Your task to perform on an android device: Search for Italian restaurants on Maps Image 0: 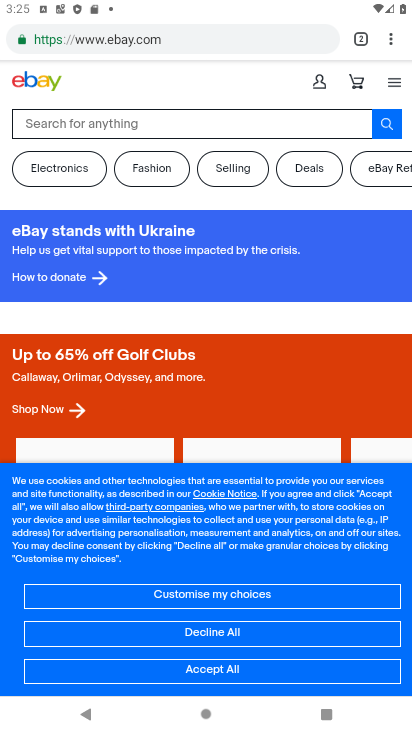
Step 0: press home button
Your task to perform on an android device: Search for Italian restaurants on Maps Image 1: 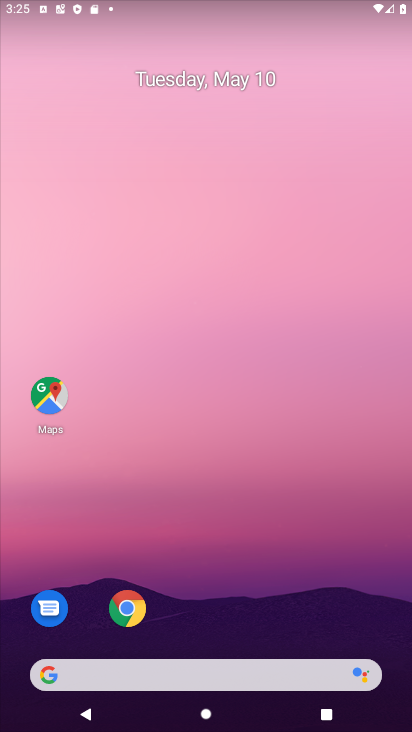
Step 1: click (49, 390)
Your task to perform on an android device: Search for Italian restaurants on Maps Image 2: 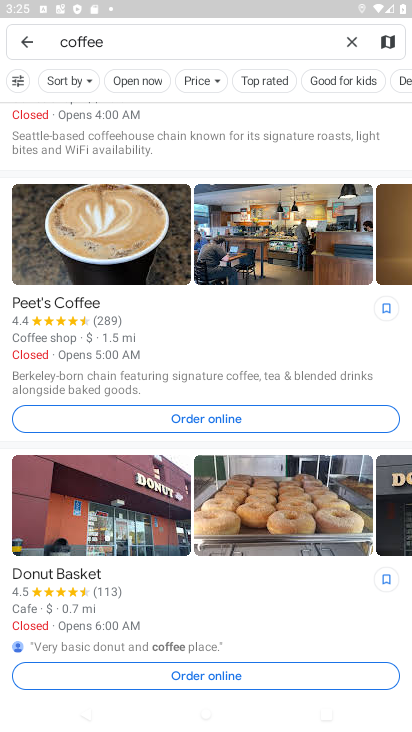
Step 2: click (353, 41)
Your task to perform on an android device: Search for Italian restaurants on Maps Image 3: 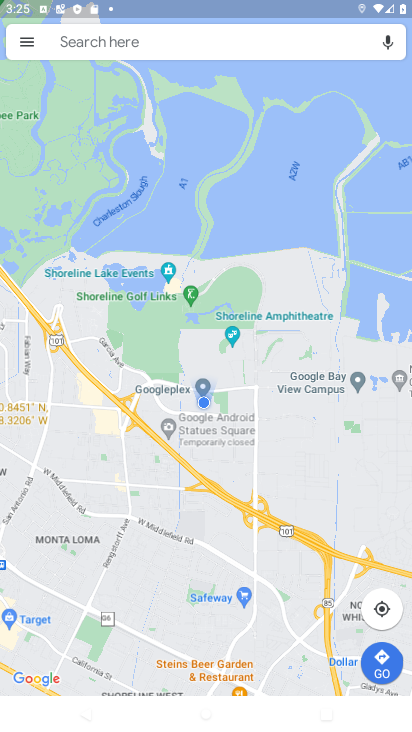
Step 3: click (145, 38)
Your task to perform on an android device: Search for Italian restaurants on Maps Image 4: 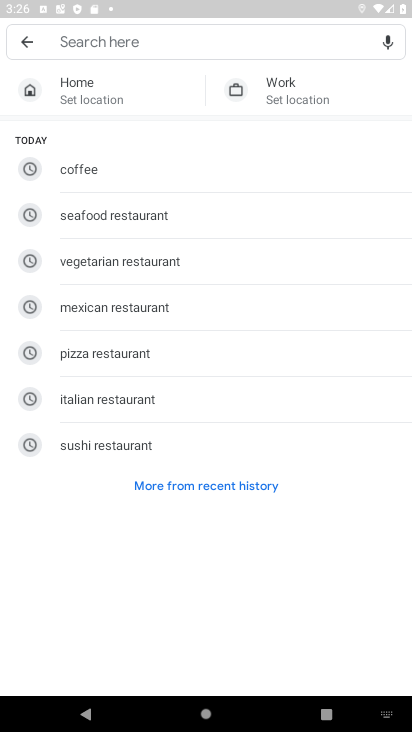
Step 4: type "italian restaurants"
Your task to perform on an android device: Search for Italian restaurants on Maps Image 5: 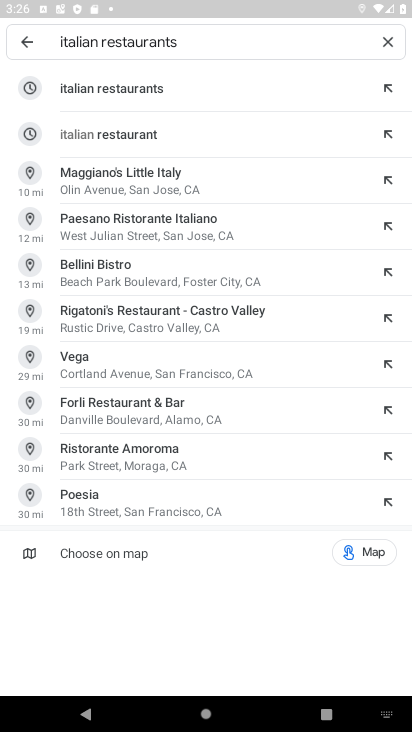
Step 5: click (106, 84)
Your task to perform on an android device: Search for Italian restaurants on Maps Image 6: 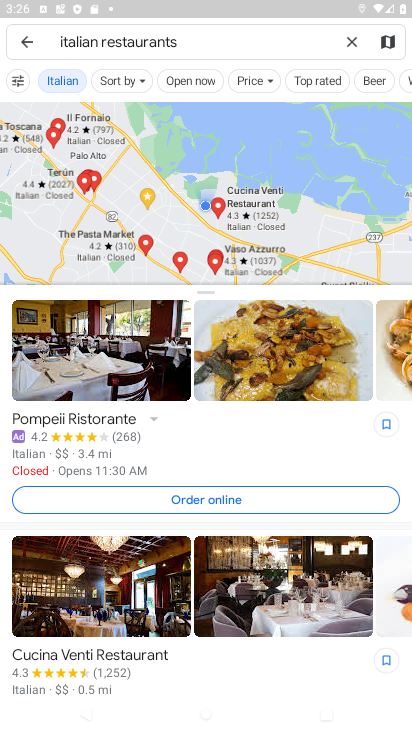
Step 6: task complete